Your task to perform on an android device: Do I have any events today? Image 0: 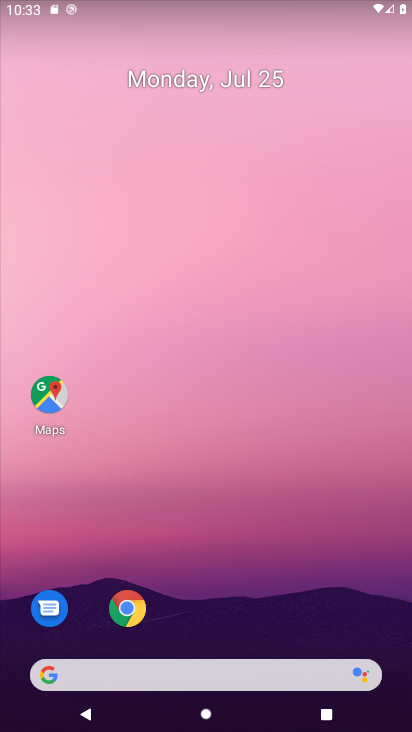
Step 0: drag from (239, 617) to (210, 209)
Your task to perform on an android device: Do I have any events today? Image 1: 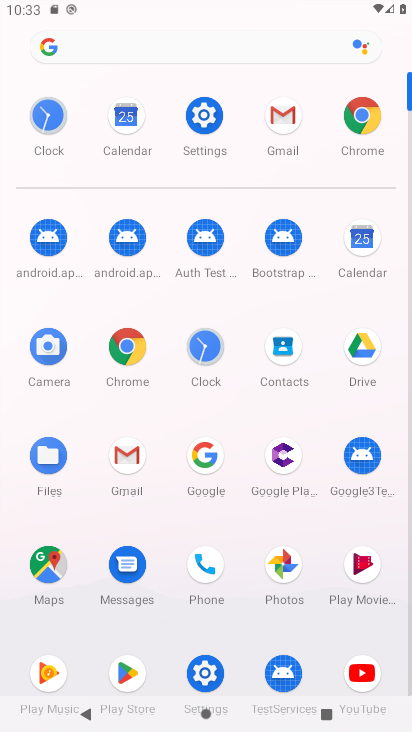
Step 1: click (358, 226)
Your task to perform on an android device: Do I have any events today? Image 2: 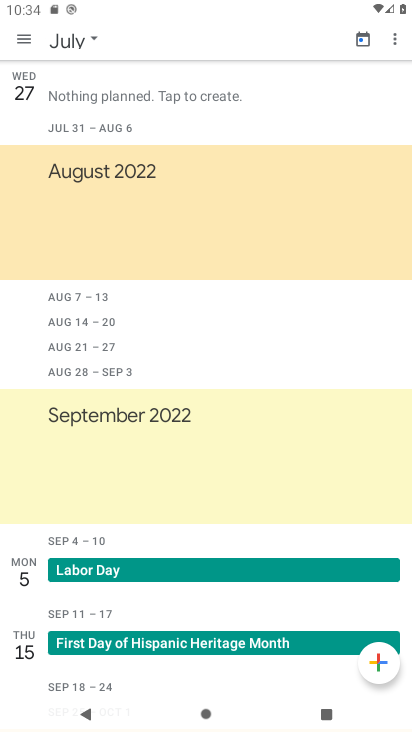
Step 2: drag from (142, 135) to (129, 490)
Your task to perform on an android device: Do I have any events today? Image 3: 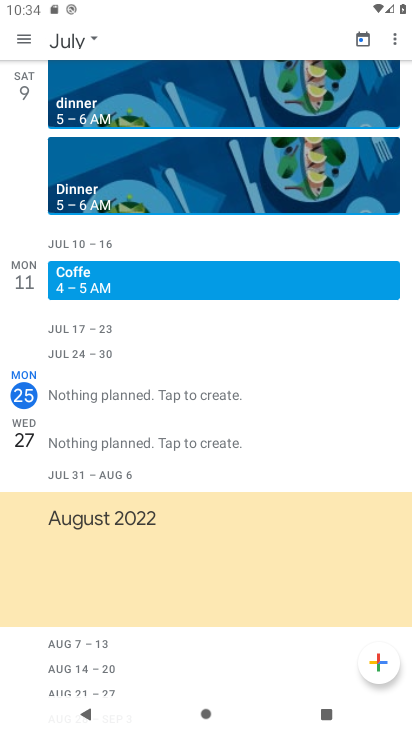
Step 3: click (56, 383)
Your task to perform on an android device: Do I have any events today? Image 4: 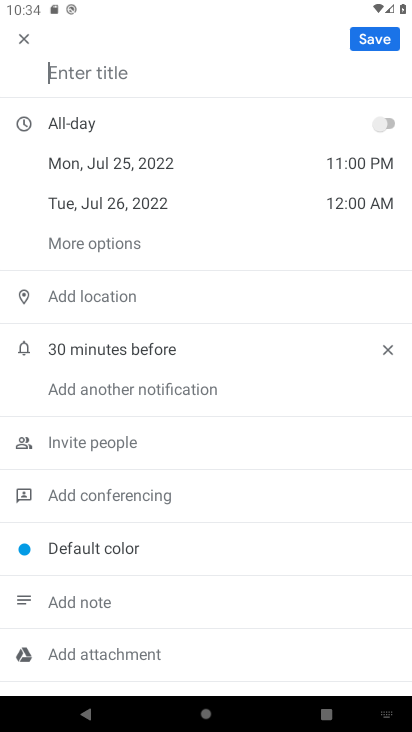
Step 4: click (19, 35)
Your task to perform on an android device: Do I have any events today? Image 5: 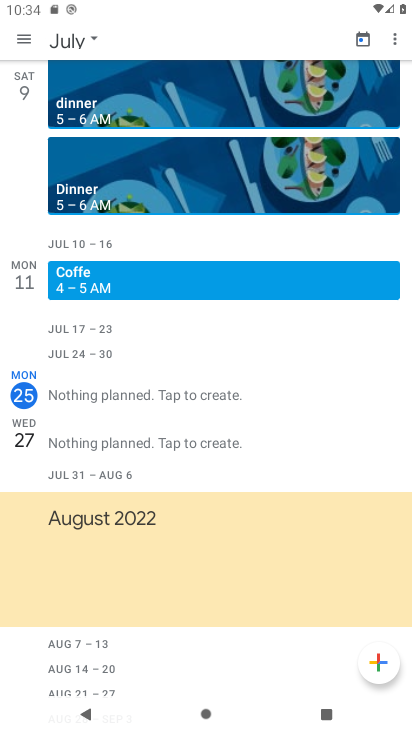
Step 5: click (19, 35)
Your task to perform on an android device: Do I have any events today? Image 6: 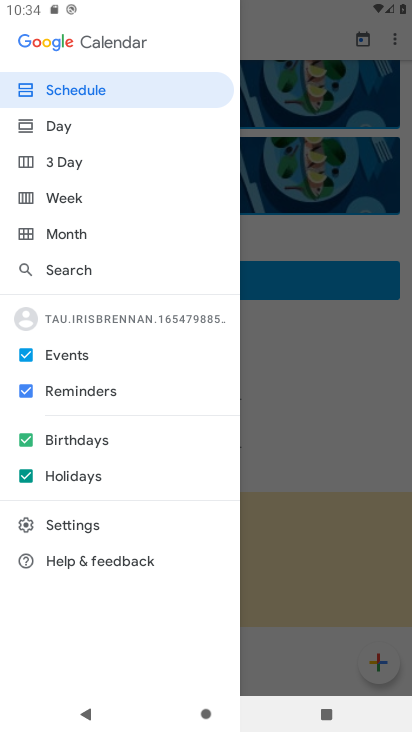
Step 6: click (69, 235)
Your task to perform on an android device: Do I have any events today? Image 7: 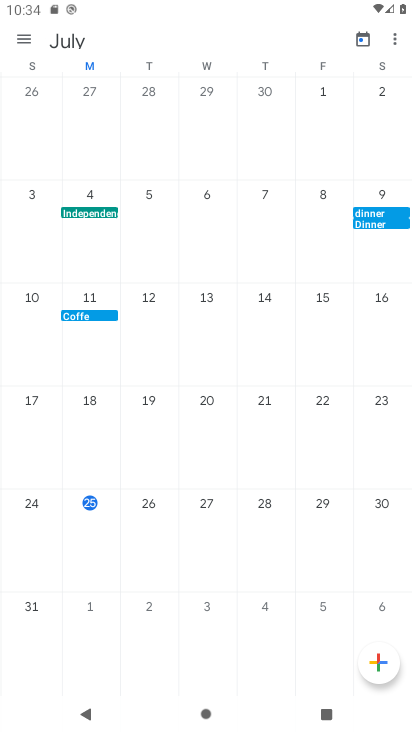
Step 7: click (138, 508)
Your task to perform on an android device: Do I have any events today? Image 8: 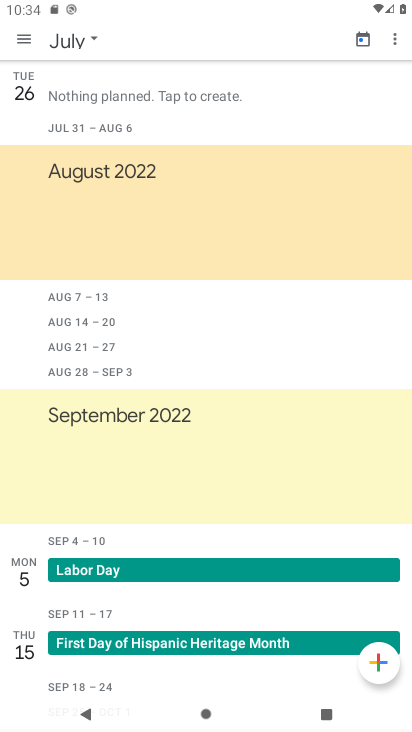
Step 8: task complete